Your task to perform on an android device: Search for "apple airpods" on newegg, select the first entry, add it to the cart, then select checkout. Image 0: 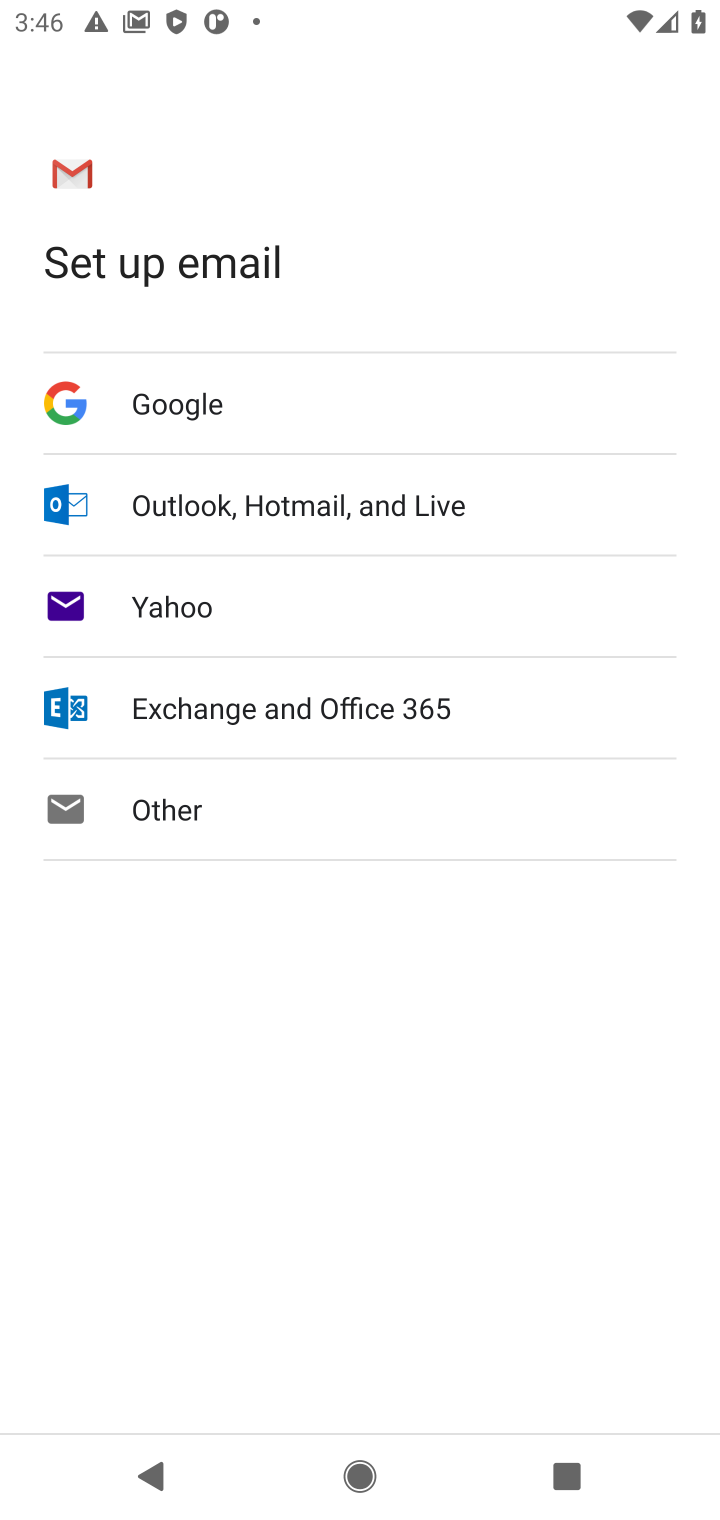
Step 0: press home button
Your task to perform on an android device: Search for "apple airpods" on newegg, select the first entry, add it to the cart, then select checkout. Image 1: 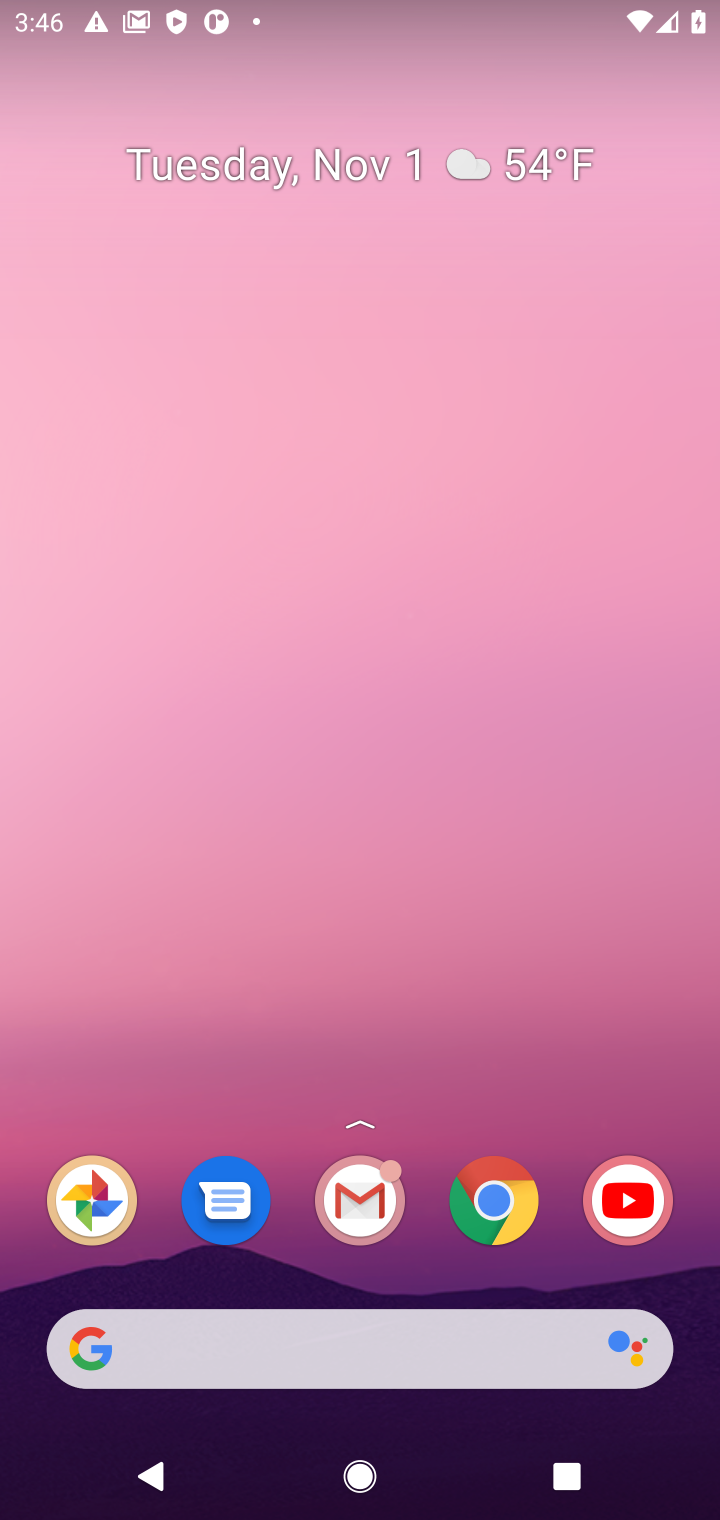
Step 1: click (89, 1346)
Your task to perform on an android device: Search for "apple airpods" on newegg, select the first entry, add it to the cart, then select checkout. Image 2: 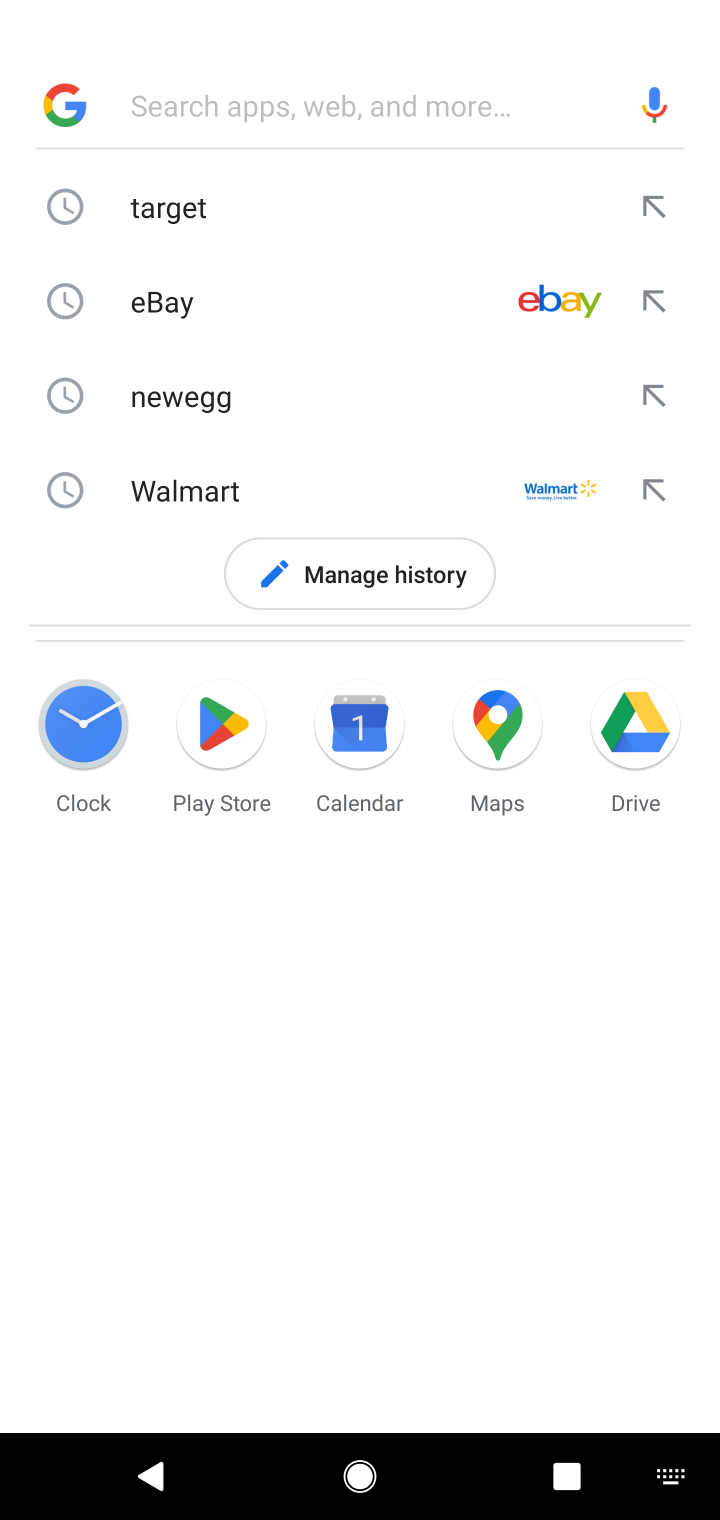
Step 2: click (193, 405)
Your task to perform on an android device: Search for "apple airpods" on newegg, select the first entry, add it to the cart, then select checkout. Image 3: 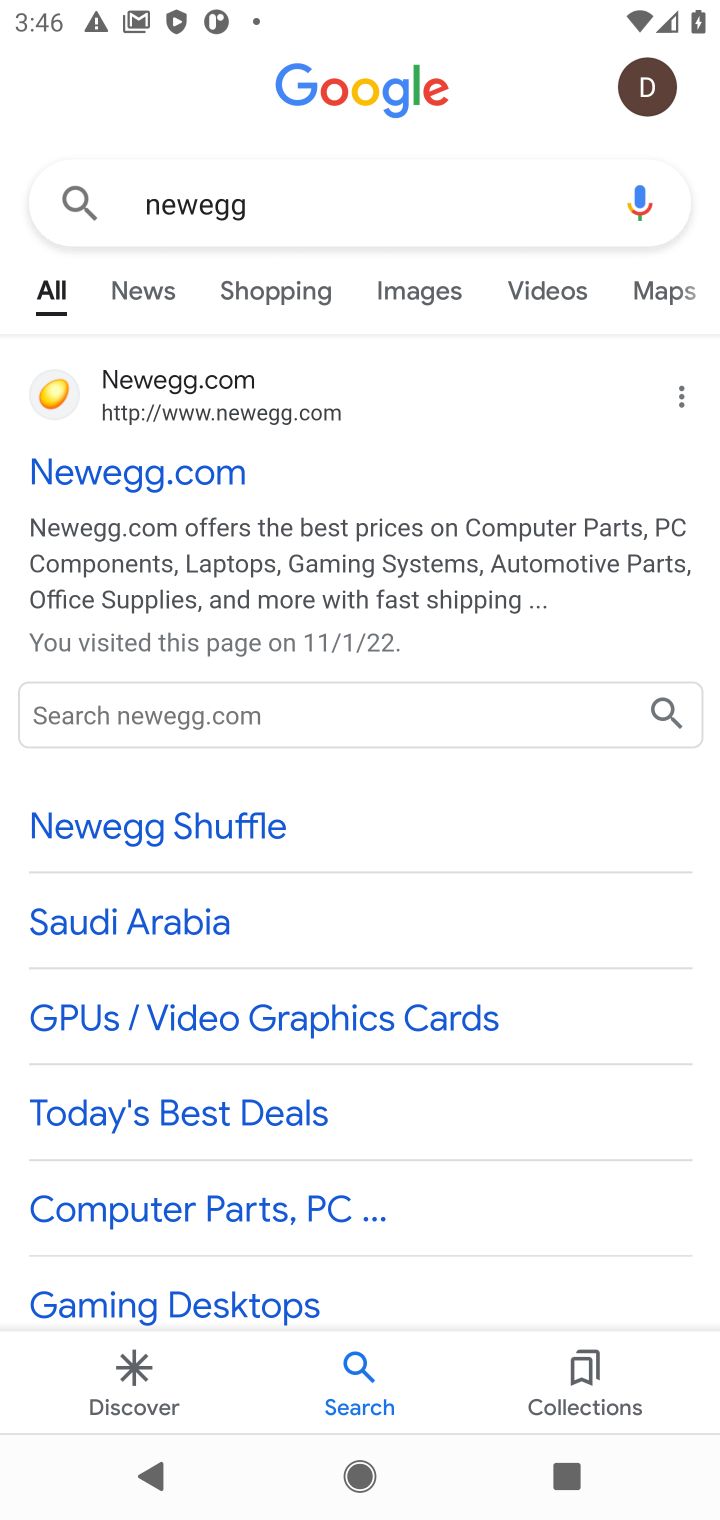
Step 3: click (177, 460)
Your task to perform on an android device: Search for "apple airpods" on newegg, select the first entry, add it to the cart, then select checkout. Image 4: 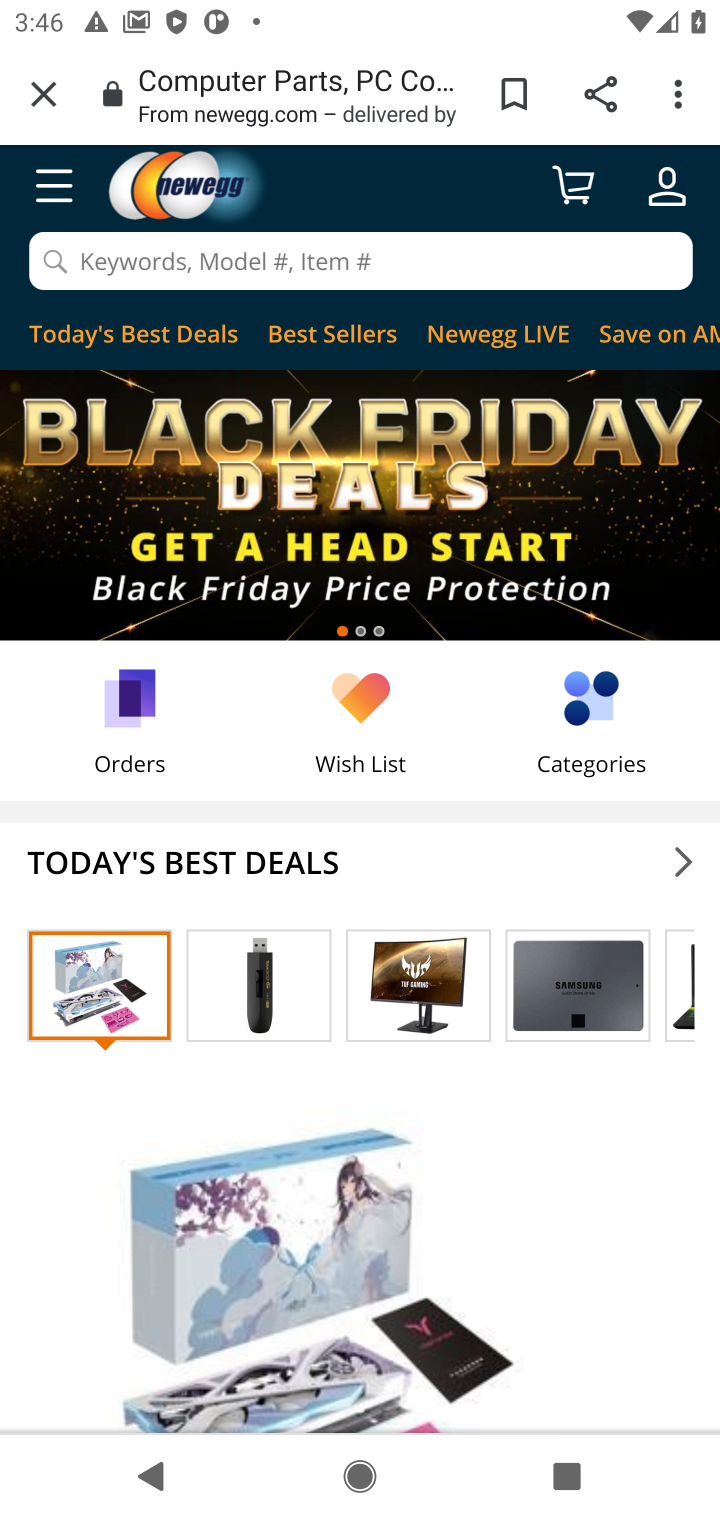
Step 4: click (334, 267)
Your task to perform on an android device: Search for "apple airpods" on newegg, select the first entry, add it to the cart, then select checkout. Image 5: 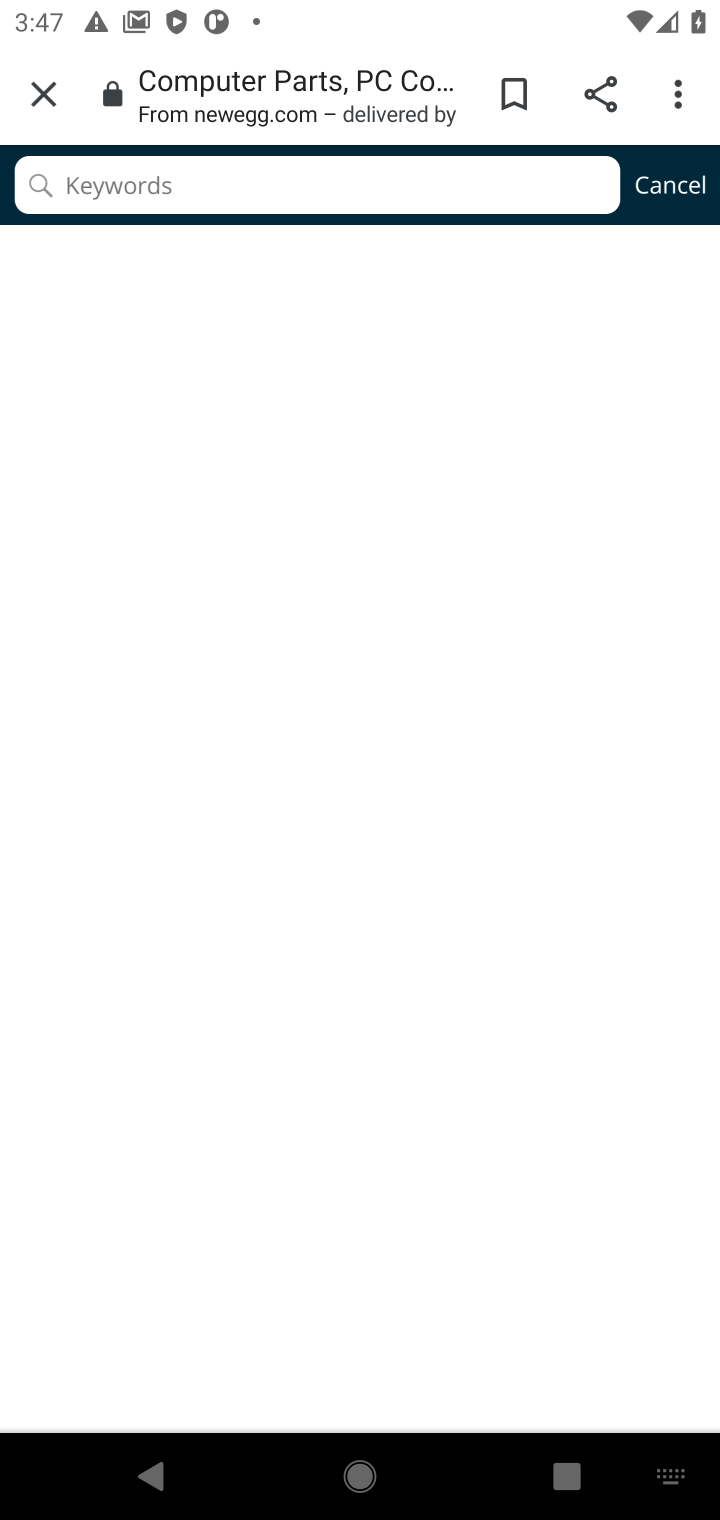
Step 5: type "apple airpods"
Your task to perform on an android device: Search for "apple airpods" on newegg, select the first entry, add it to the cart, then select checkout. Image 6: 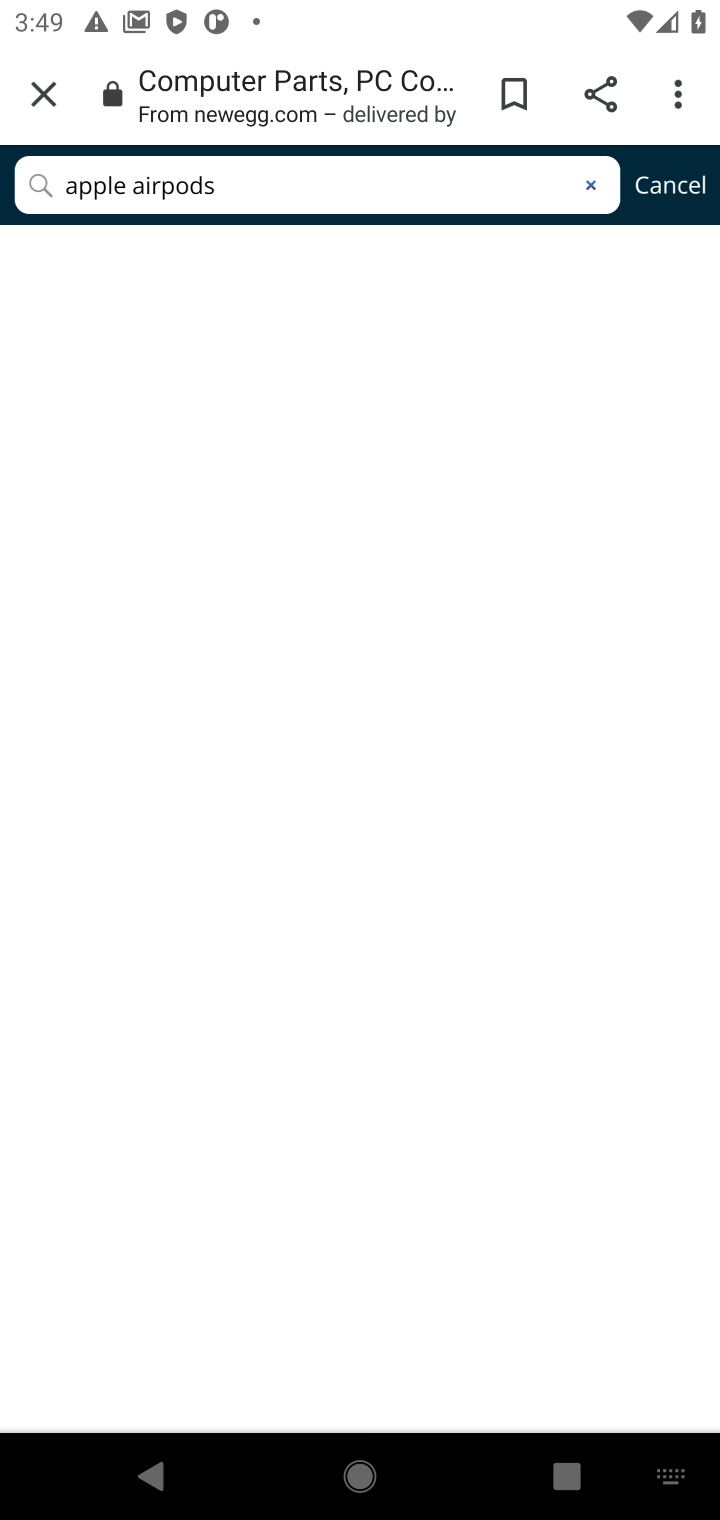
Step 6: task complete